Your task to perform on an android device: Go to Maps Image 0: 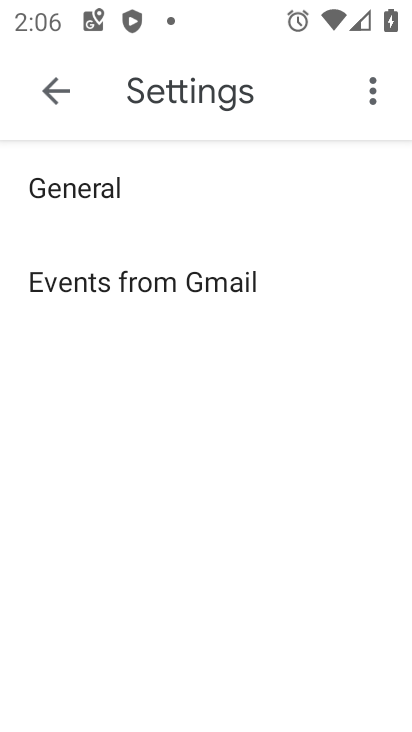
Step 0: press back button
Your task to perform on an android device: Go to Maps Image 1: 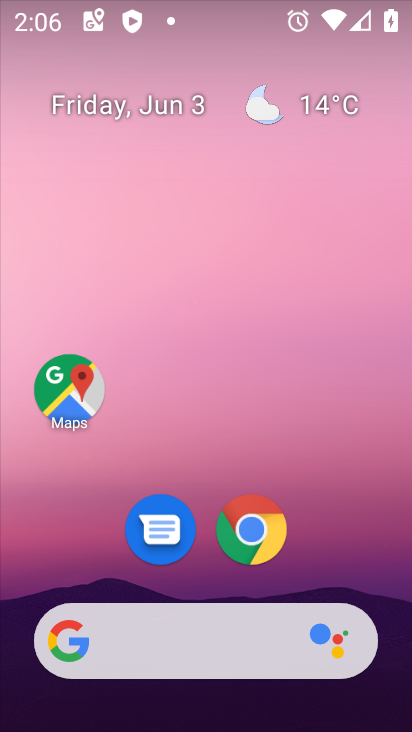
Step 1: drag from (361, 559) to (367, 202)
Your task to perform on an android device: Go to Maps Image 2: 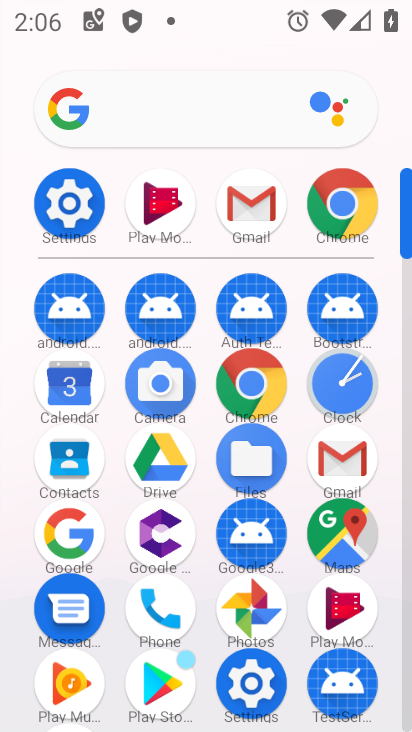
Step 2: click (343, 534)
Your task to perform on an android device: Go to Maps Image 3: 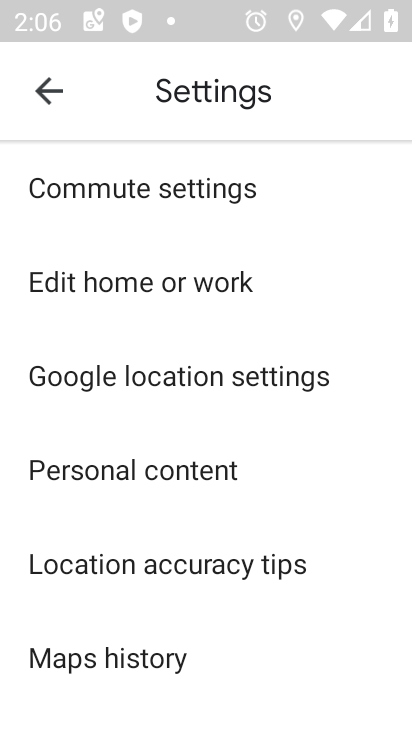
Step 3: task complete